Your task to perform on an android device: Search for the best rated 4K TV on Best Buy. Image 0: 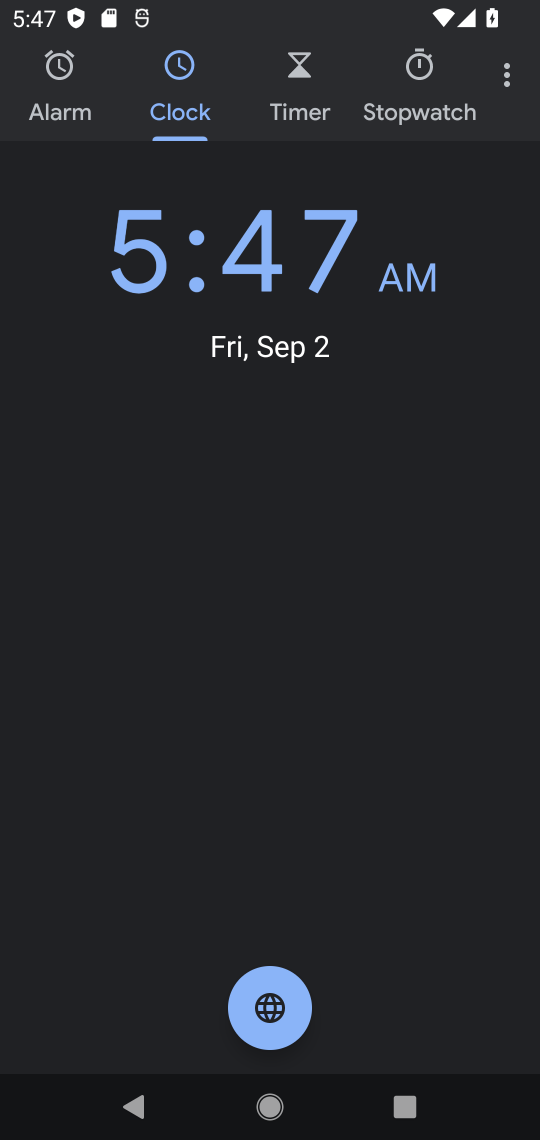
Step 0: press home button
Your task to perform on an android device: Search for the best rated 4K TV on Best Buy. Image 1: 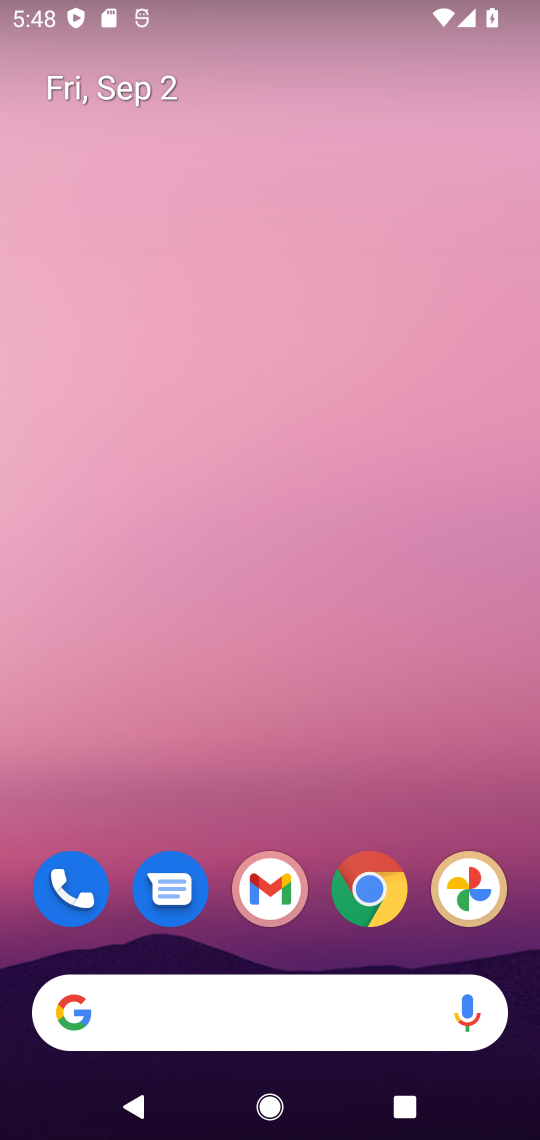
Step 1: click (191, 986)
Your task to perform on an android device: Search for the best rated 4K TV on Best Buy. Image 2: 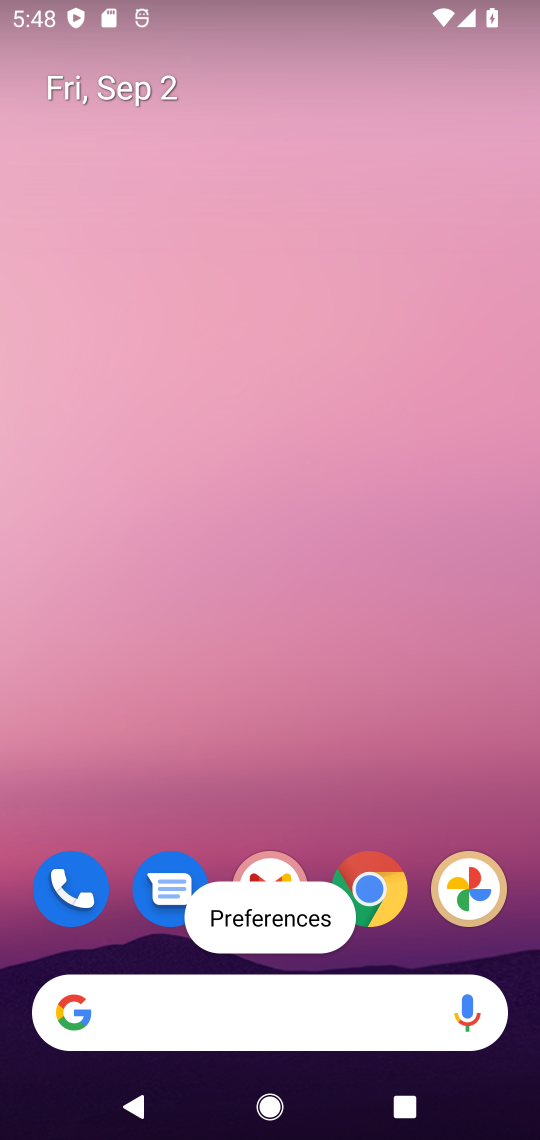
Step 2: click (207, 1022)
Your task to perform on an android device: Search for the best rated 4K TV on Best Buy. Image 3: 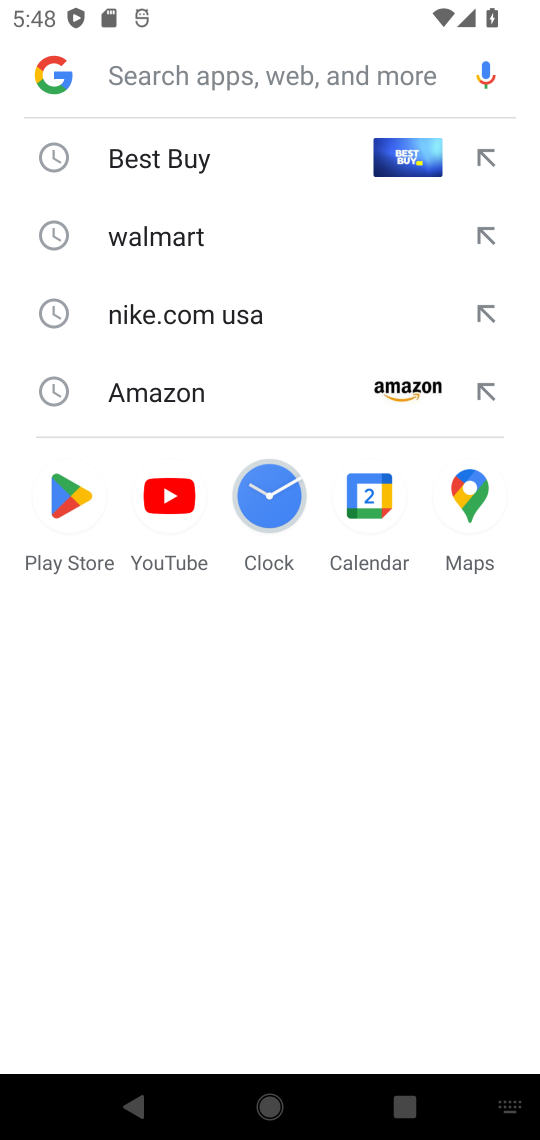
Step 3: click (219, 162)
Your task to perform on an android device: Search for the best rated 4K TV on Best Buy. Image 4: 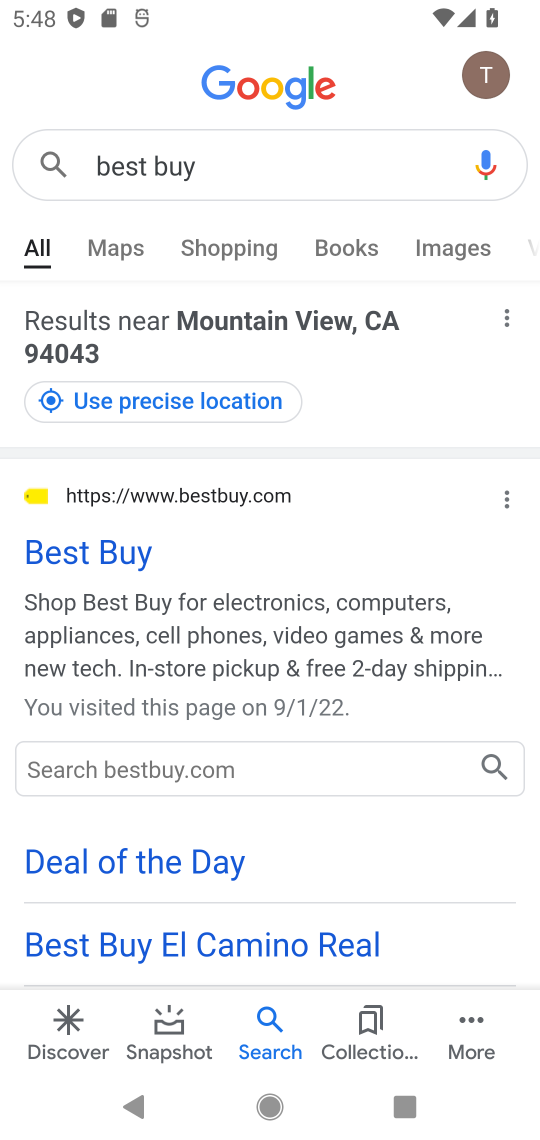
Step 4: click (95, 555)
Your task to perform on an android device: Search for the best rated 4K TV on Best Buy. Image 5: 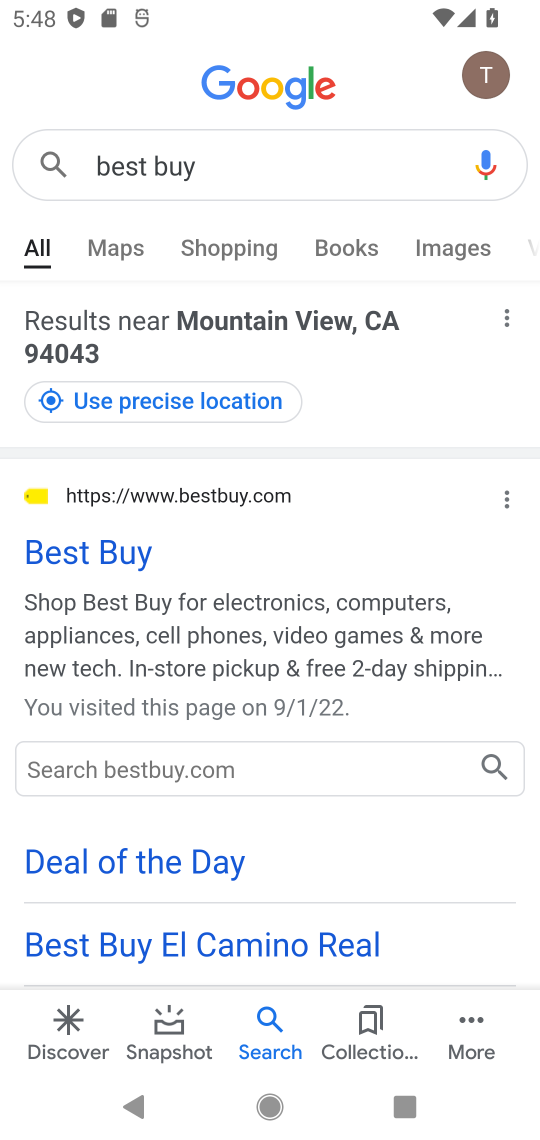
Step 5: click (106, 553)
Your task to perform on an android device: Search for the best rated 4K TV on Best Buy. Image 6: 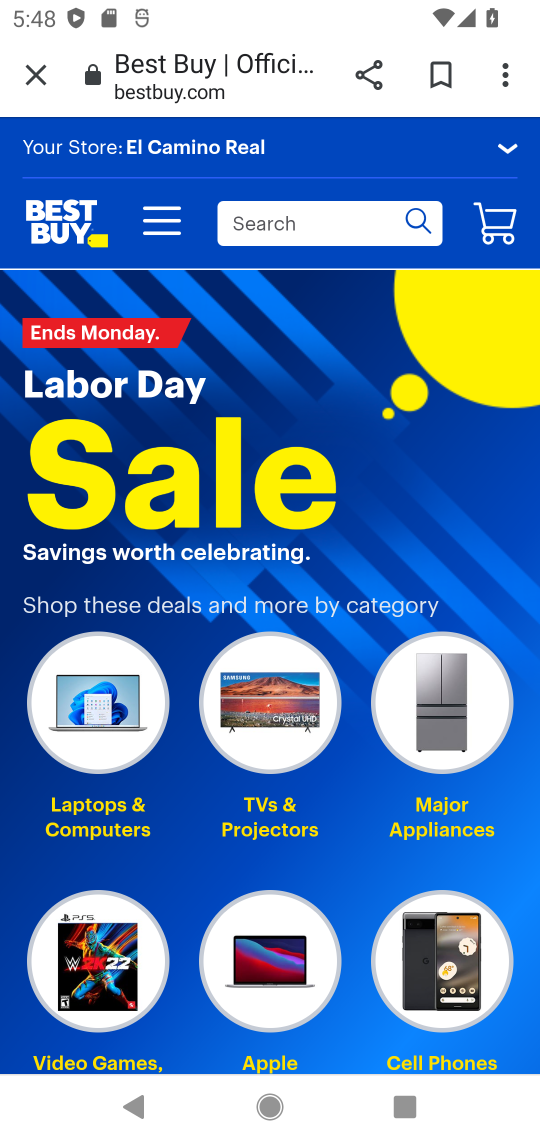
Step 6: click (248, 228)
Your task to perform on an android device: Search for the best rated 4K TV on Best Buy. Image 7: 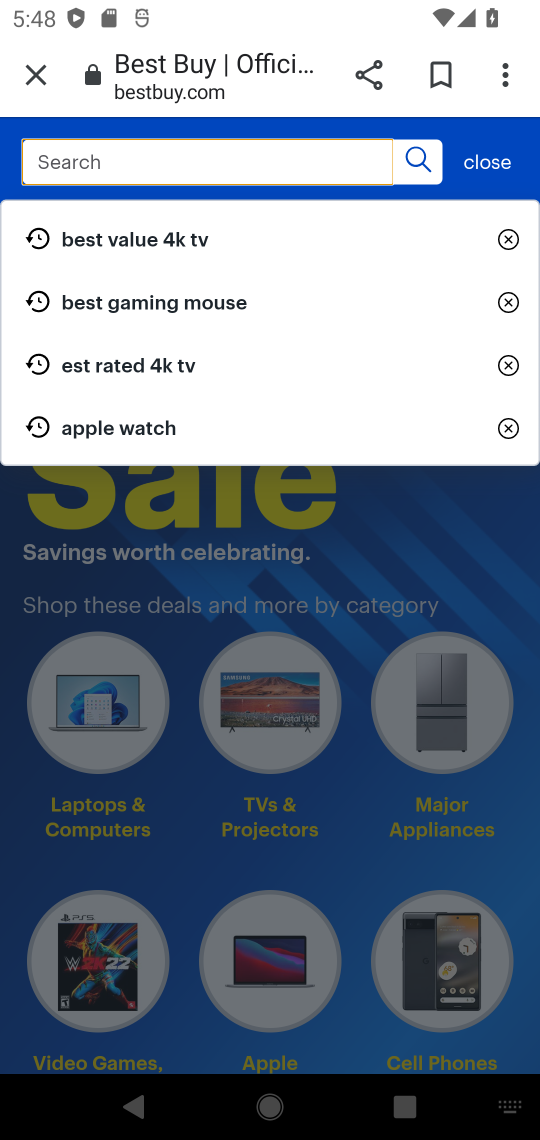
Step 7: type "best rated 4K TV"
Your task to perform on an android device: Search for the best rated 4K TV on Best Buy. Image 8: 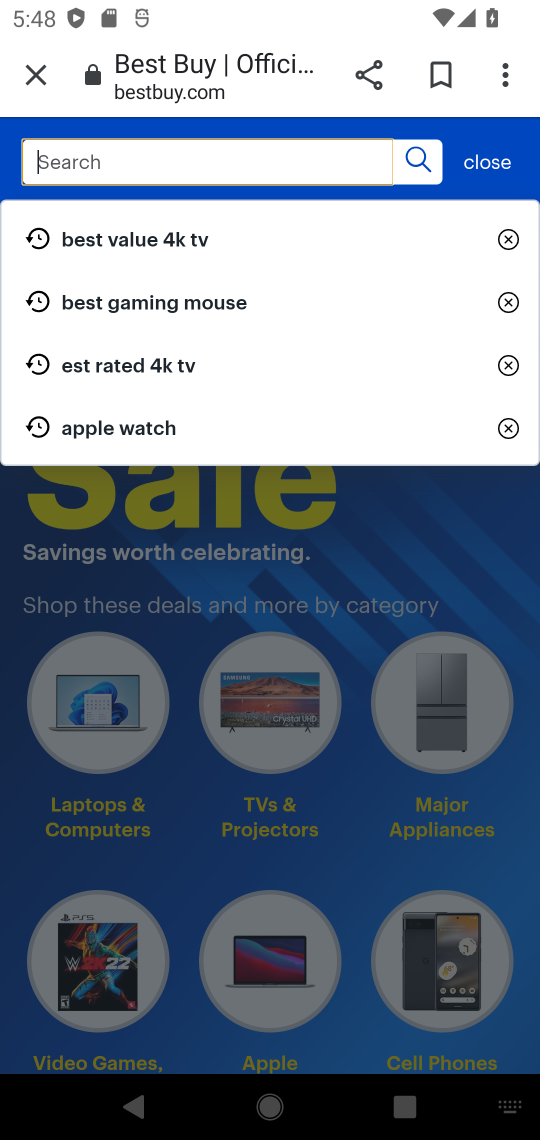
Step 8: type ""
Your task to perform on an android device: Search for the best rated 4K TV on Best Buy. Image 9: 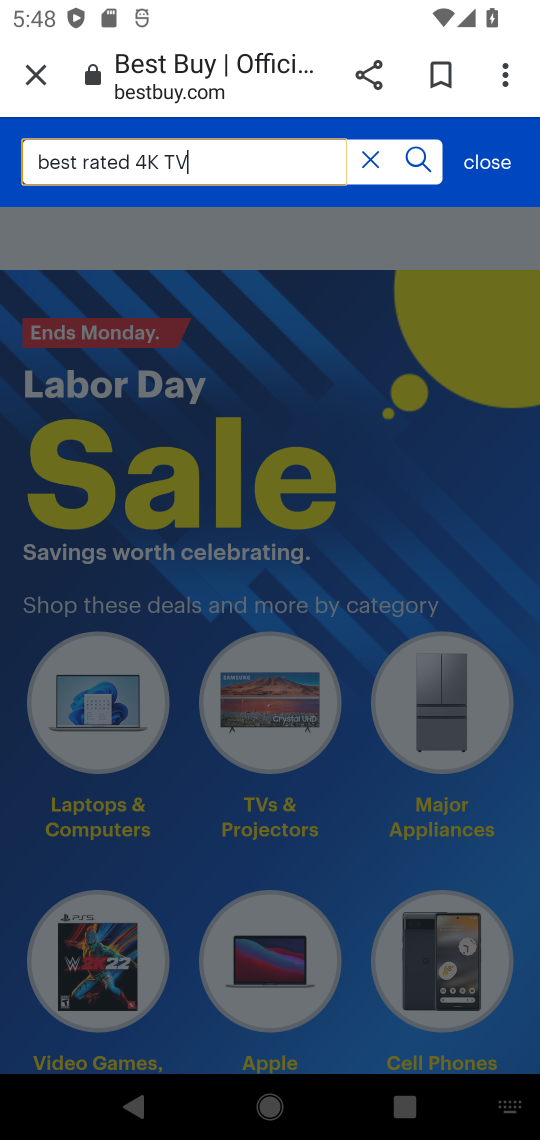
Step 9: click (418, 161)
Your task to perform on an android device: Search for the best rated 4K TV on Best Buy. Image 10: 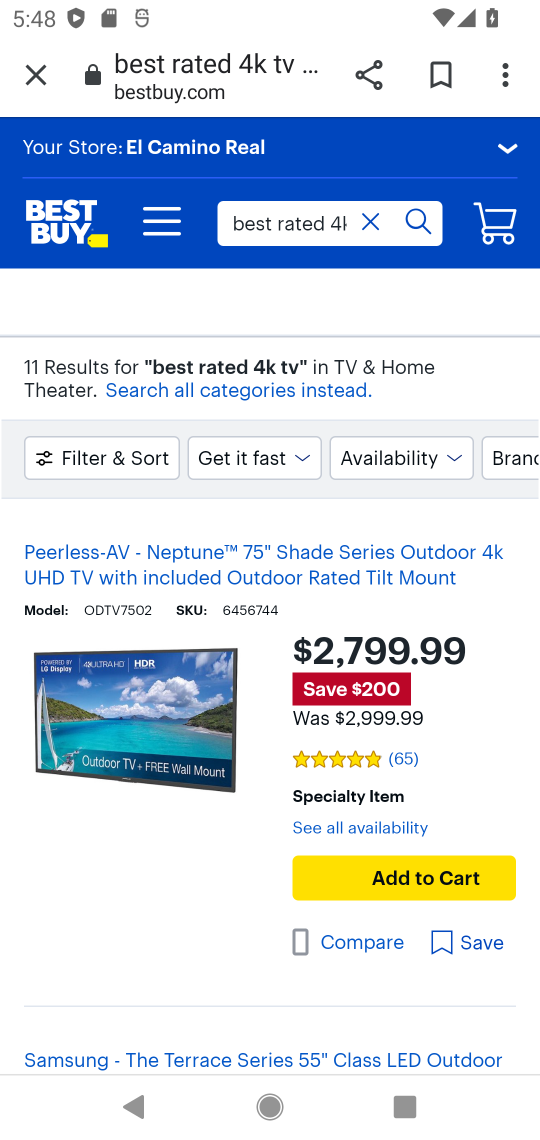
Step 10: task complete